Your task to perform on an android device: Open ESPN.com Image 0: 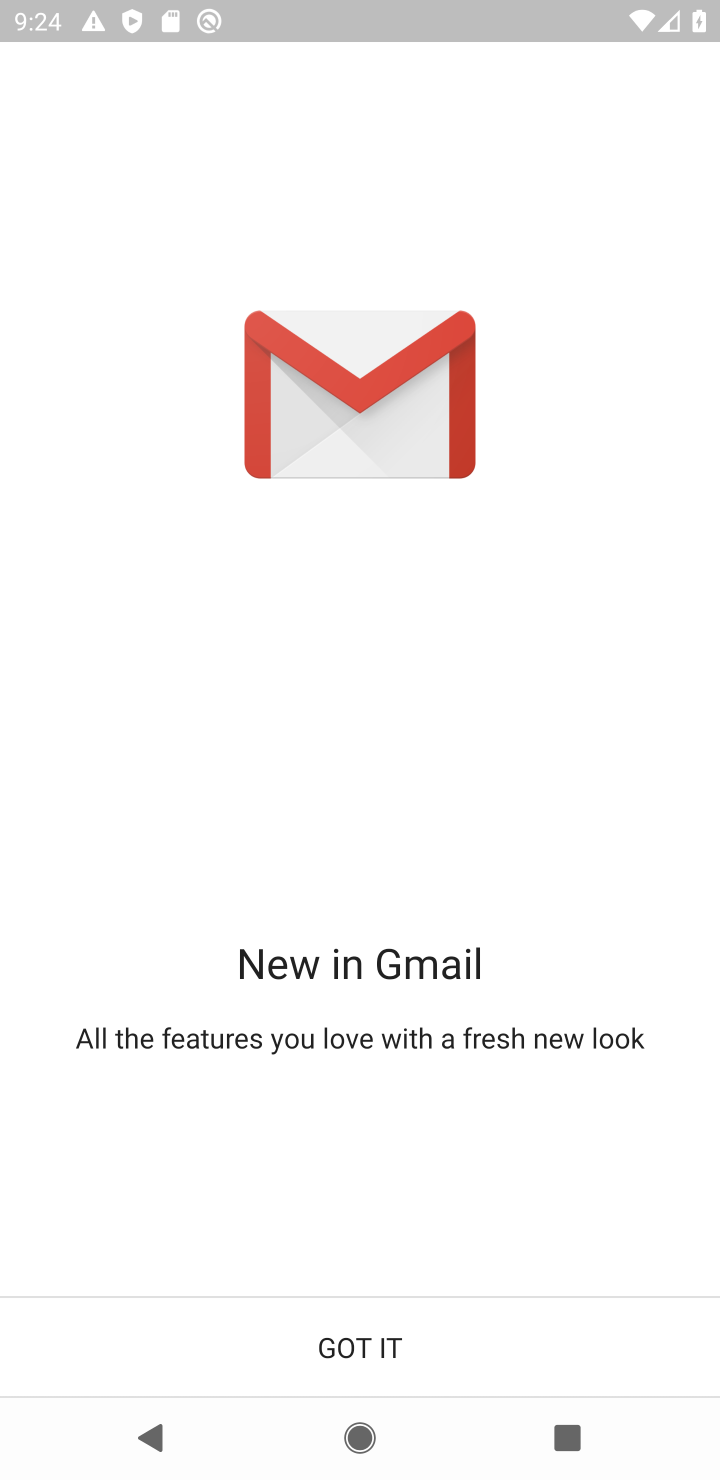
Step 0: press home button
Your task to perform on an android device: Open ESPN.com Image 1: 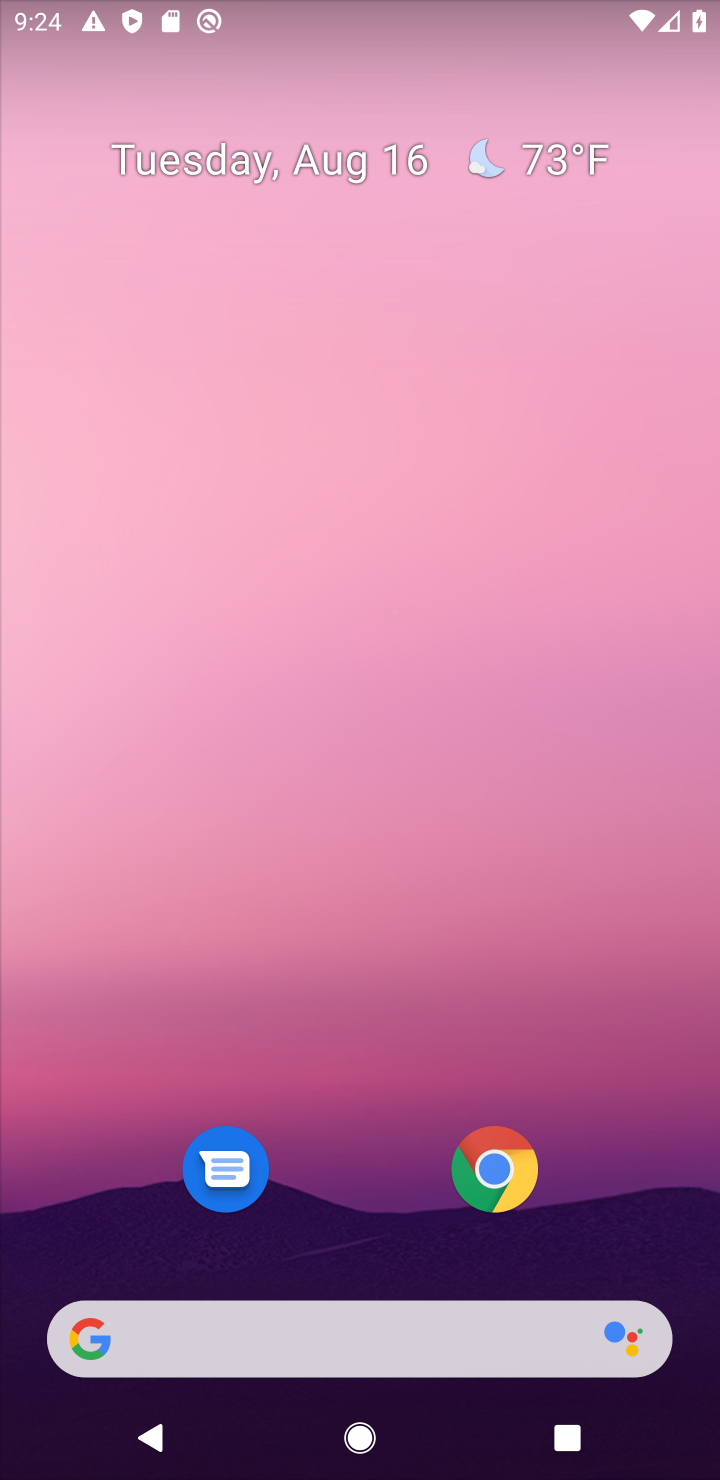
Step 1: click (492, 1187)
Your task to perform on an android device: Open ESPN.com Image 2: 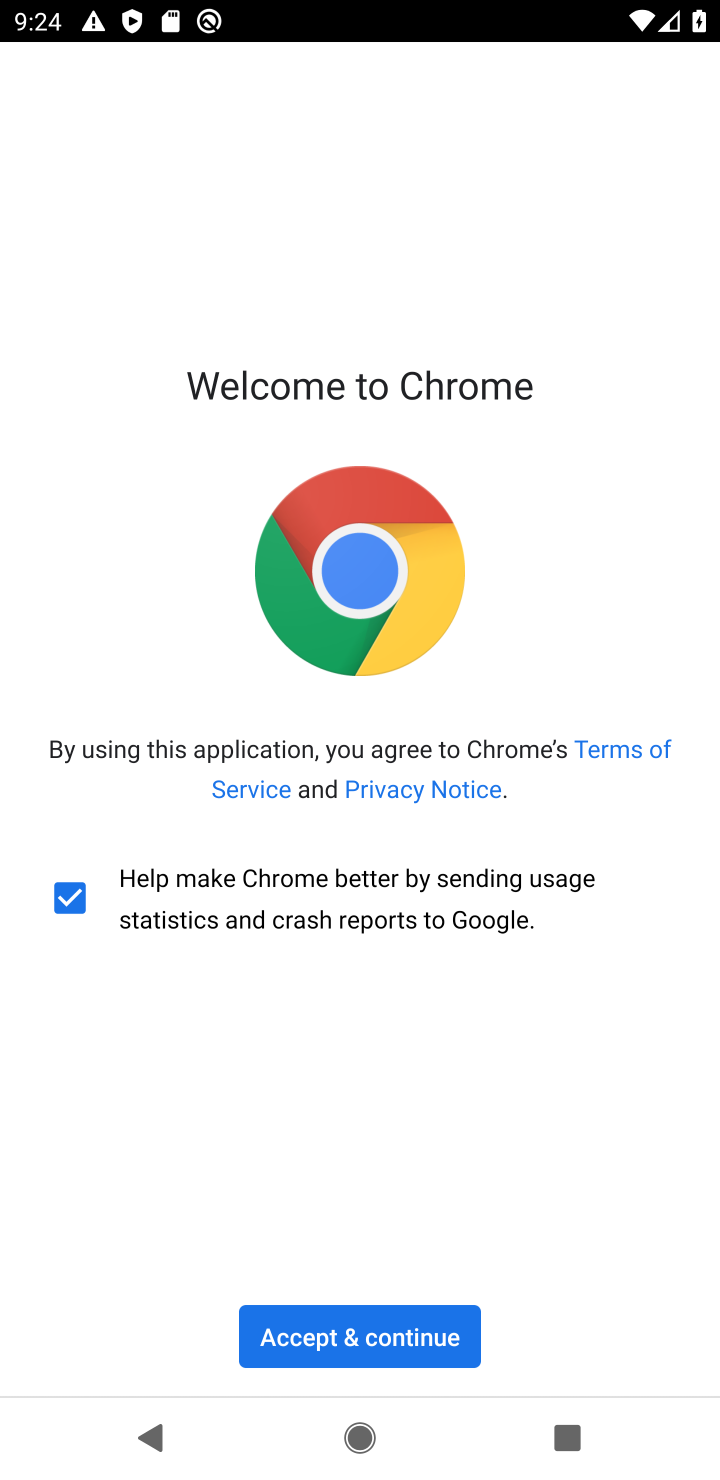
Step 2: click (375, 1337)
Your task to perform on an android device: Open ESPN.com Image 3: 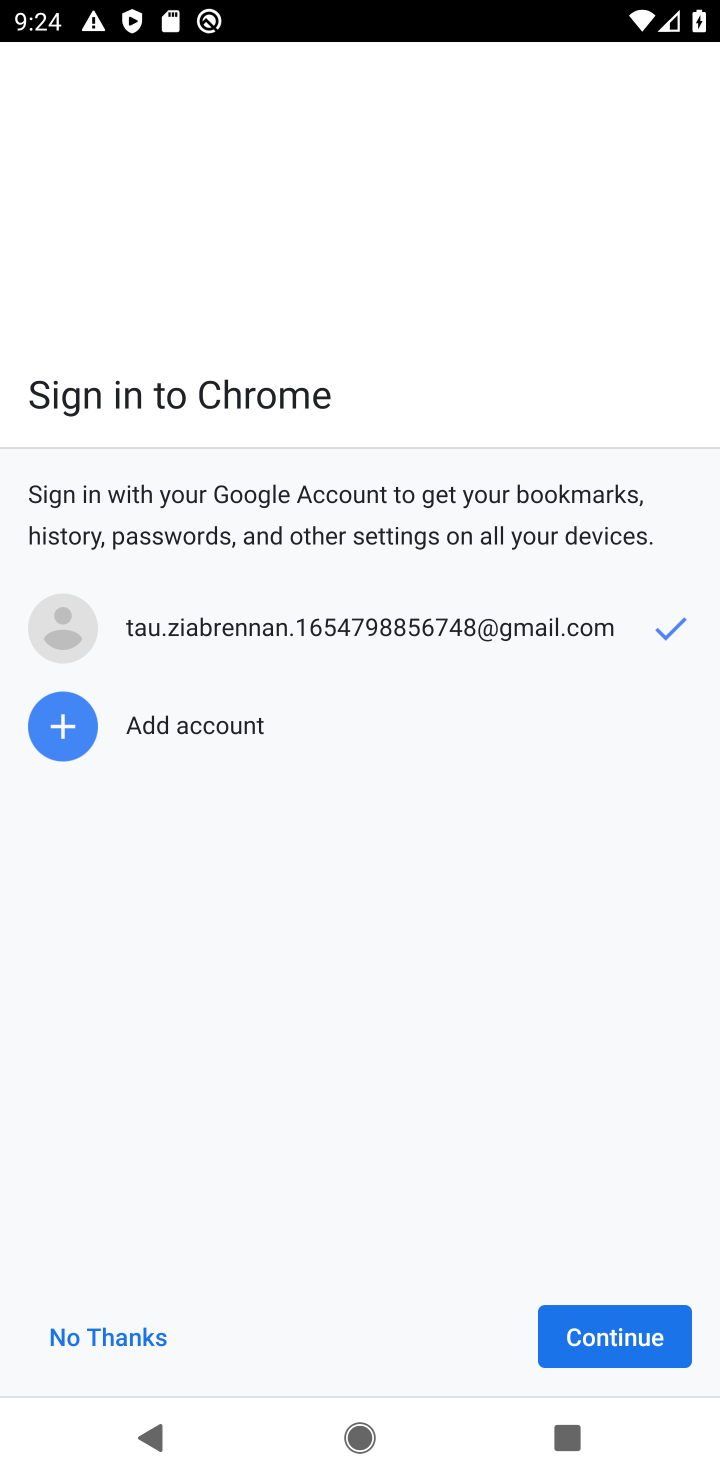
Step 3: click (590, 1359)
Your task to perform on an android device: Open ESPN.com Image 4: 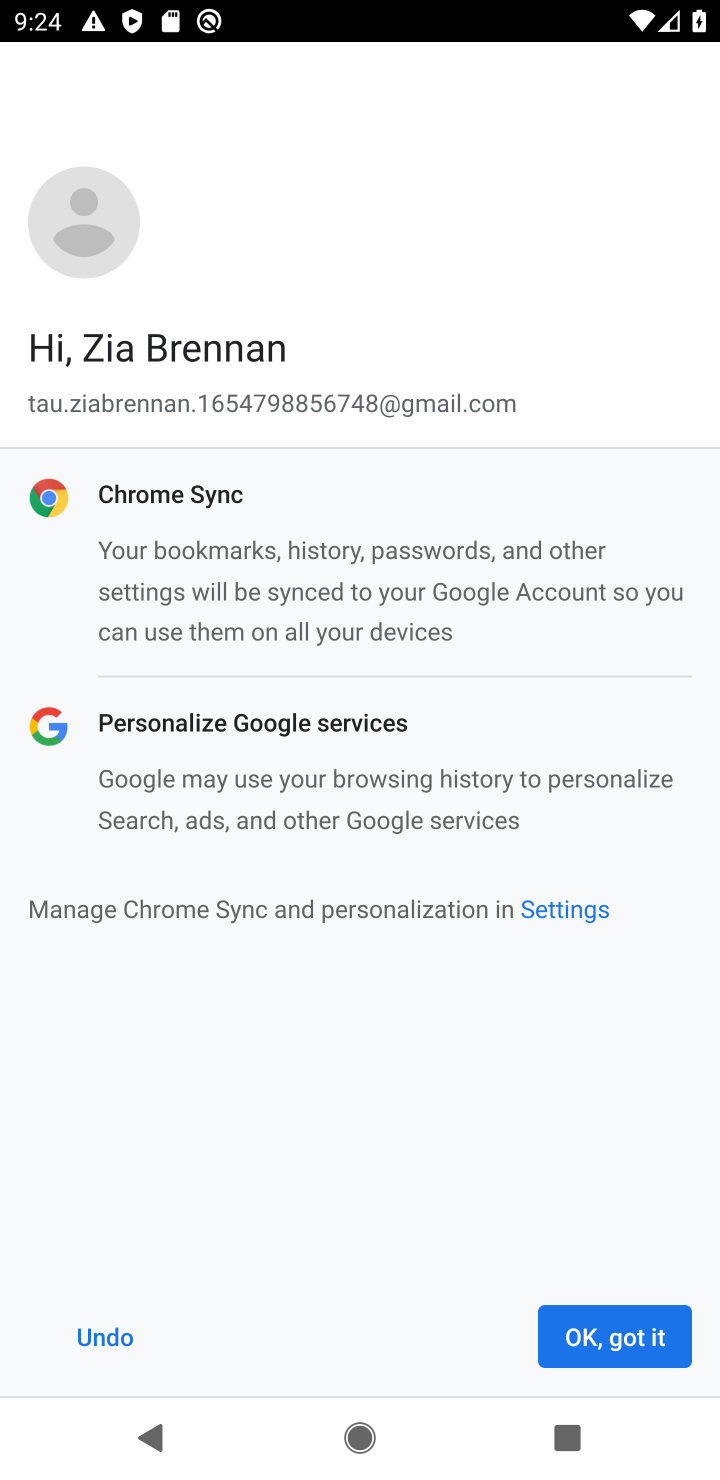
Step 4: click (590, 1359)
Your task to perform on an android device: Open ESPN.com Image 5: 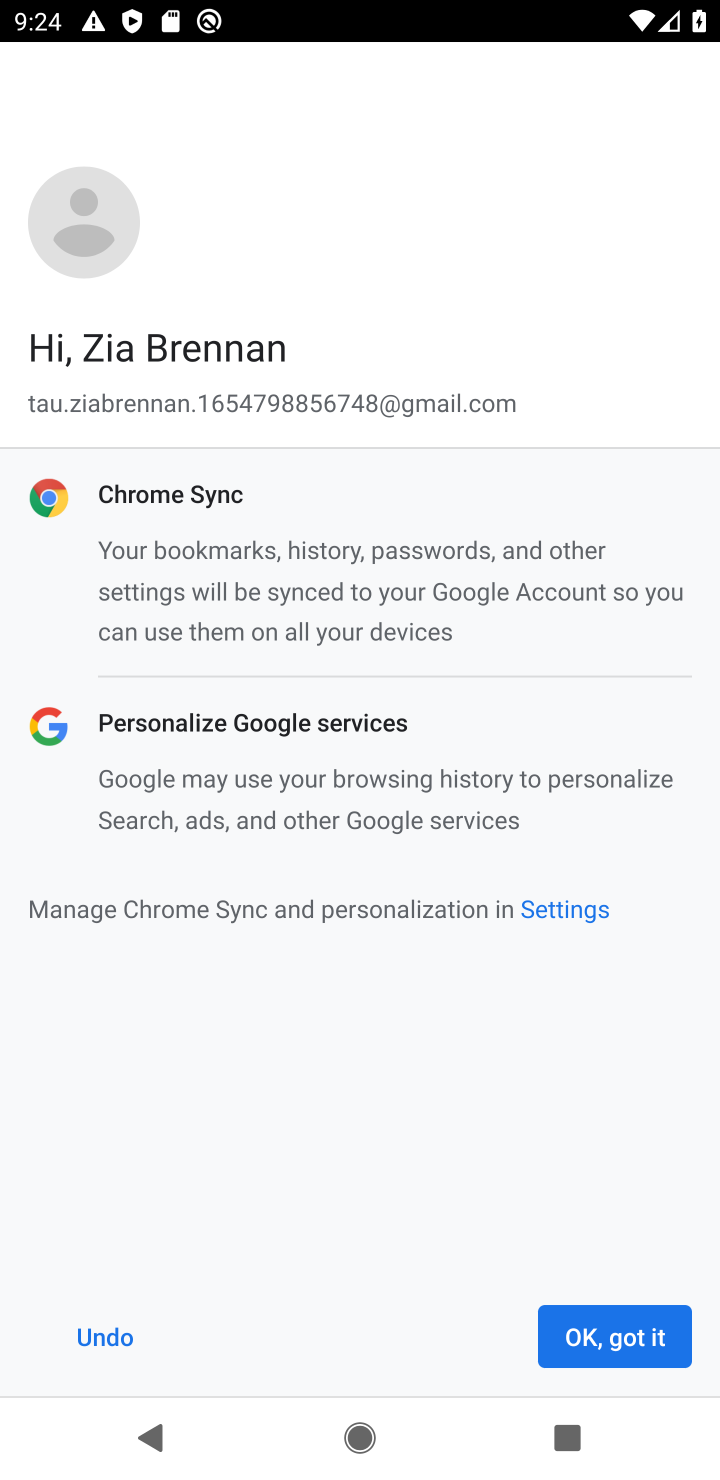
Step 5: click (590, 1359)
Your task to perform on an android device: Open ESPN.com Image 6: 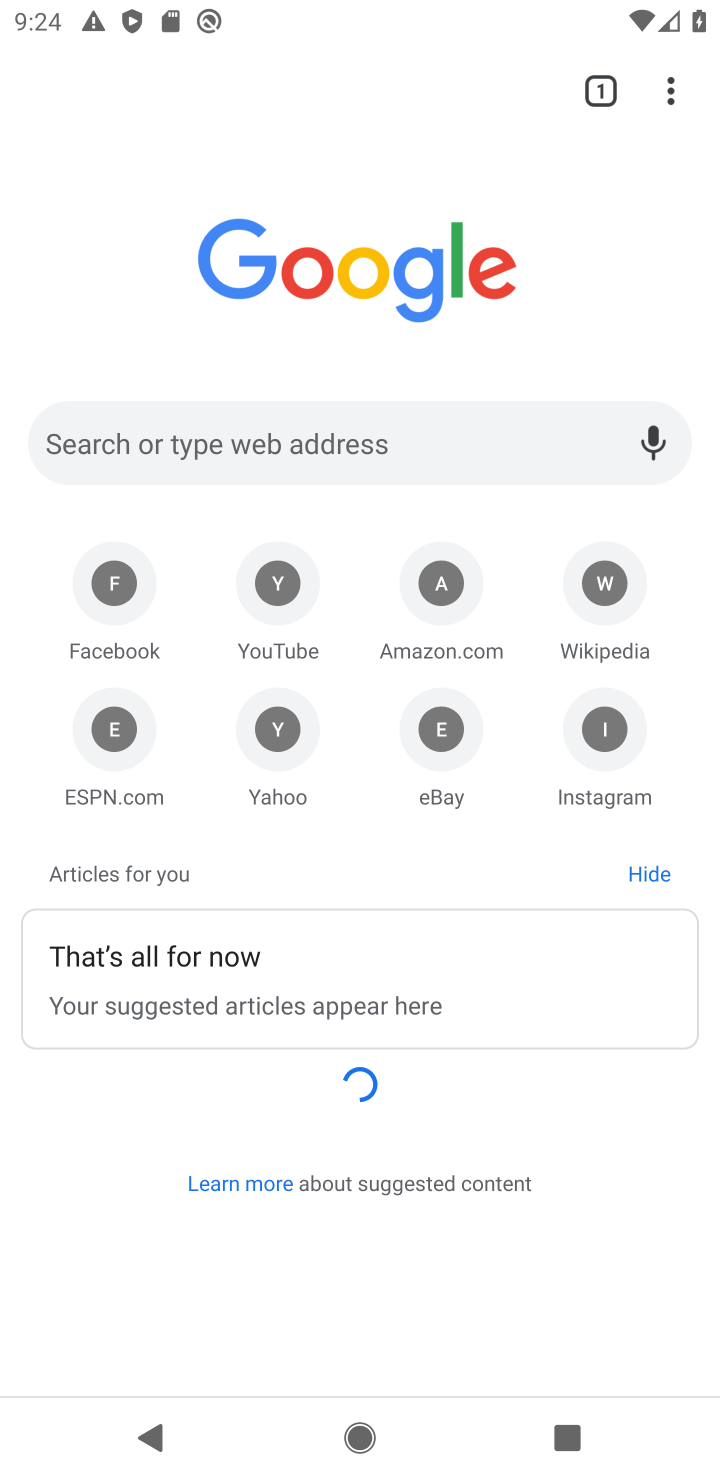
Step 6: click (104, 750)
Your task to perform on an android device: Open ESPN.com Image 7: 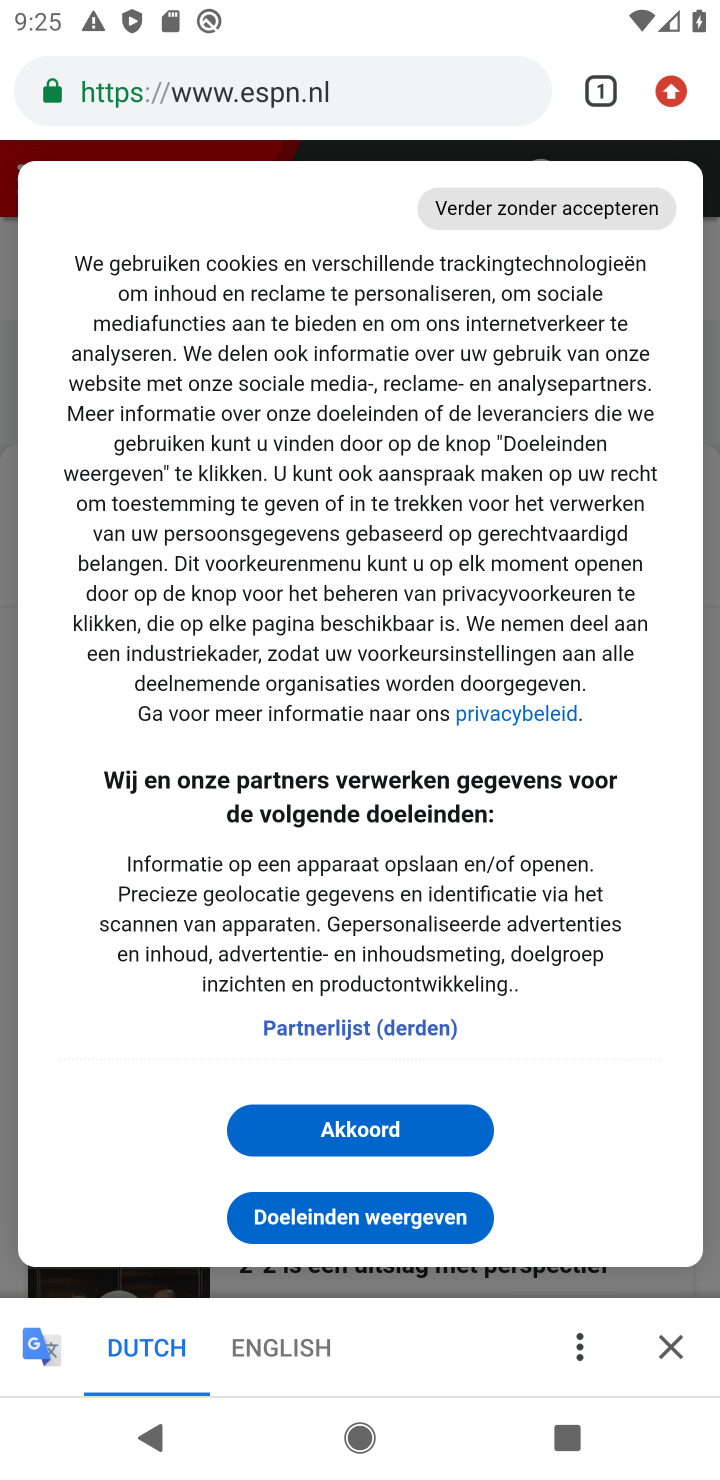
Step 7: task complete